Your task to perform on an android device: delete location history Image 0: 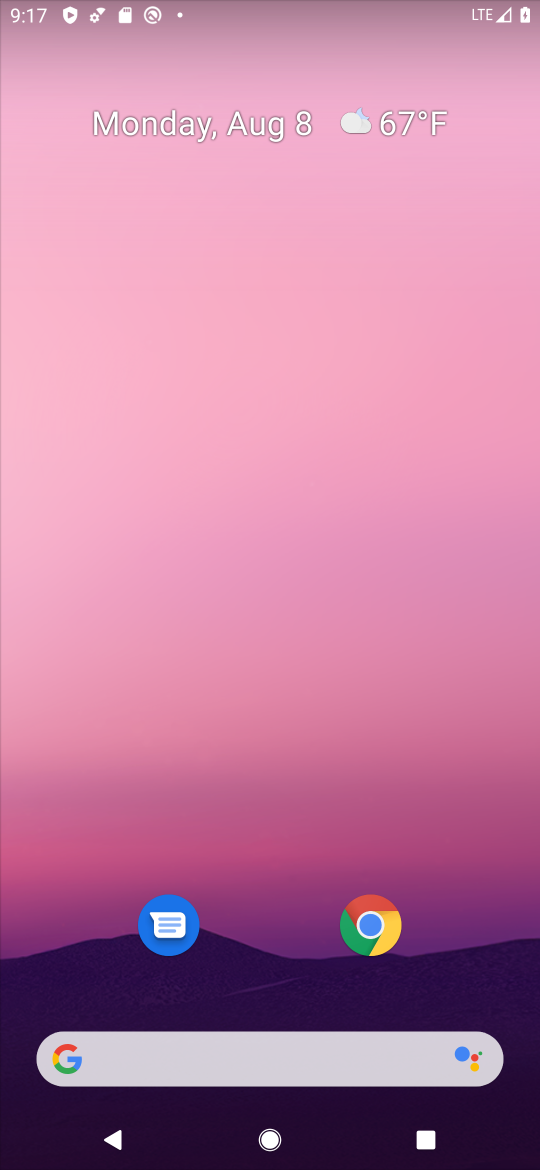
Step 0: drag from (213, 631) to (182, 49)
Your task to perform on an android device: delete location history Image 1: 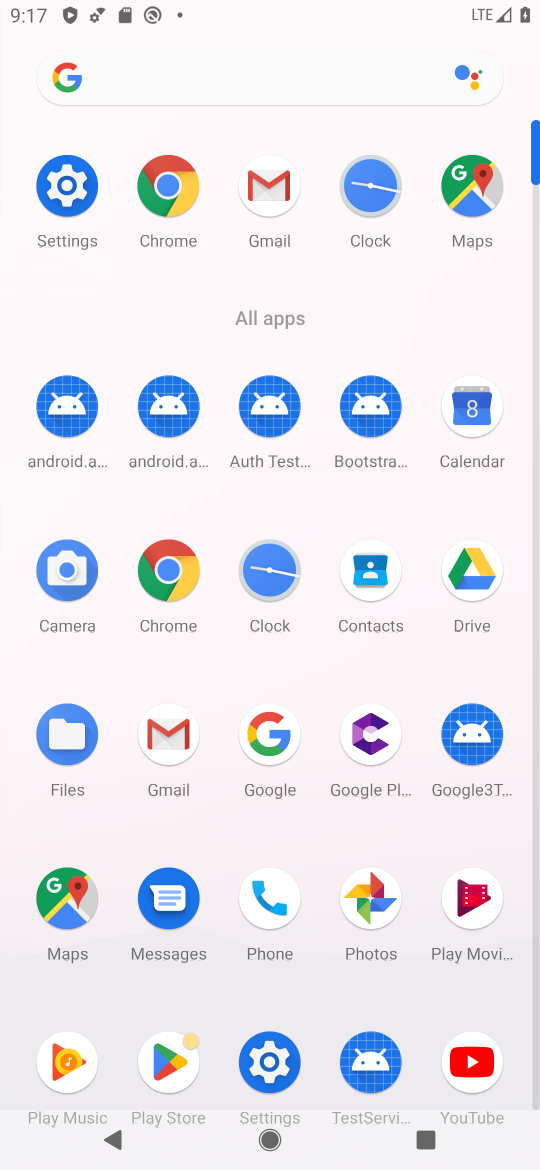
Step 1: click (53, 894)
Your task to perform on an android device: delete location history Image 2: 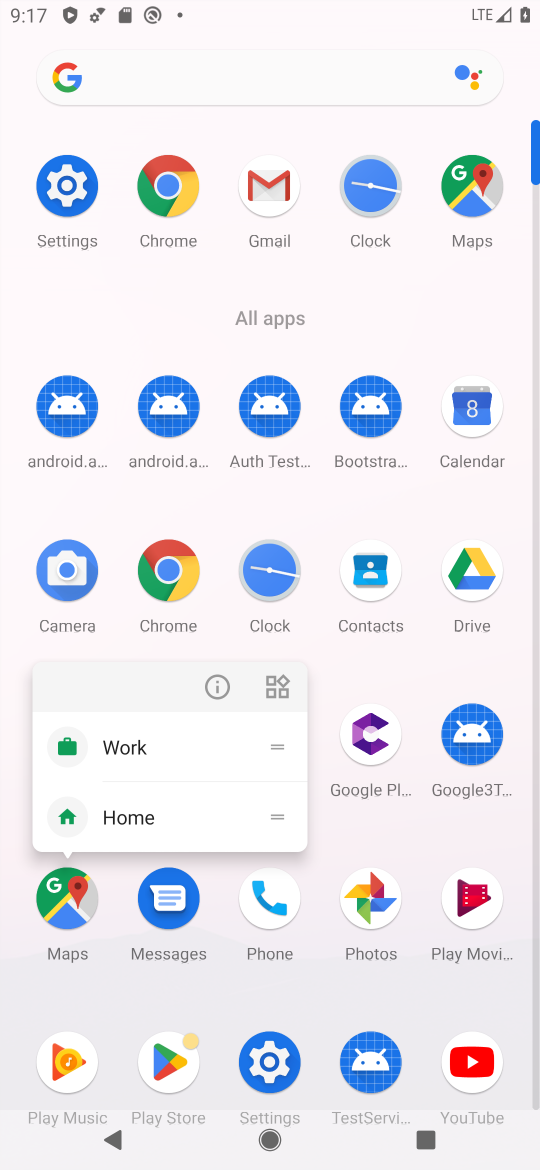
Step 2: click (63, 898)
Your task to perform on an android device: delete location history Image 3: 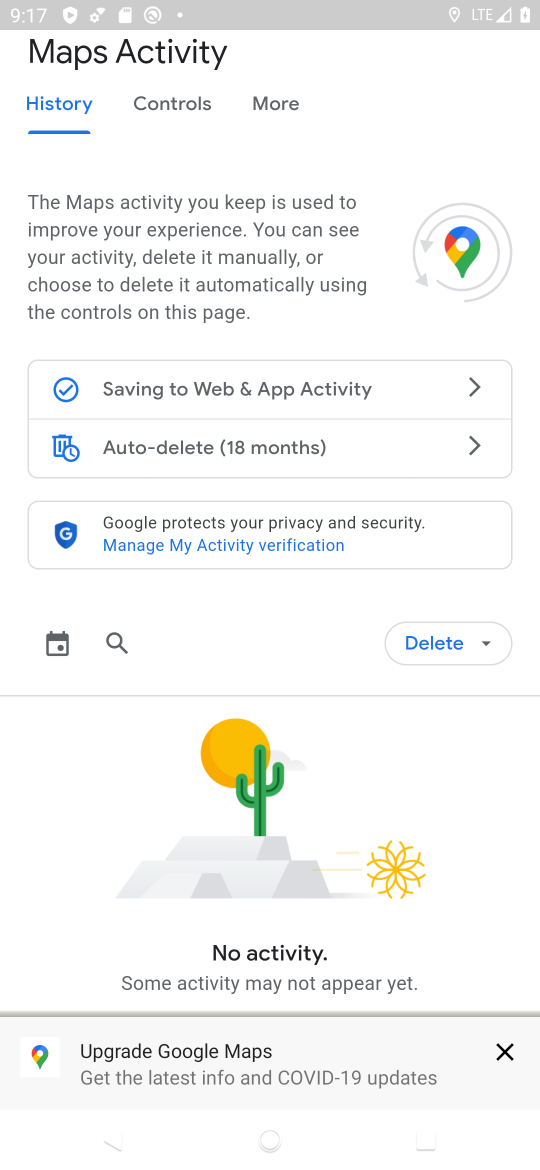
Step 3: click (477, 638)
Your task to perform on an android device: delete location history Image 4: 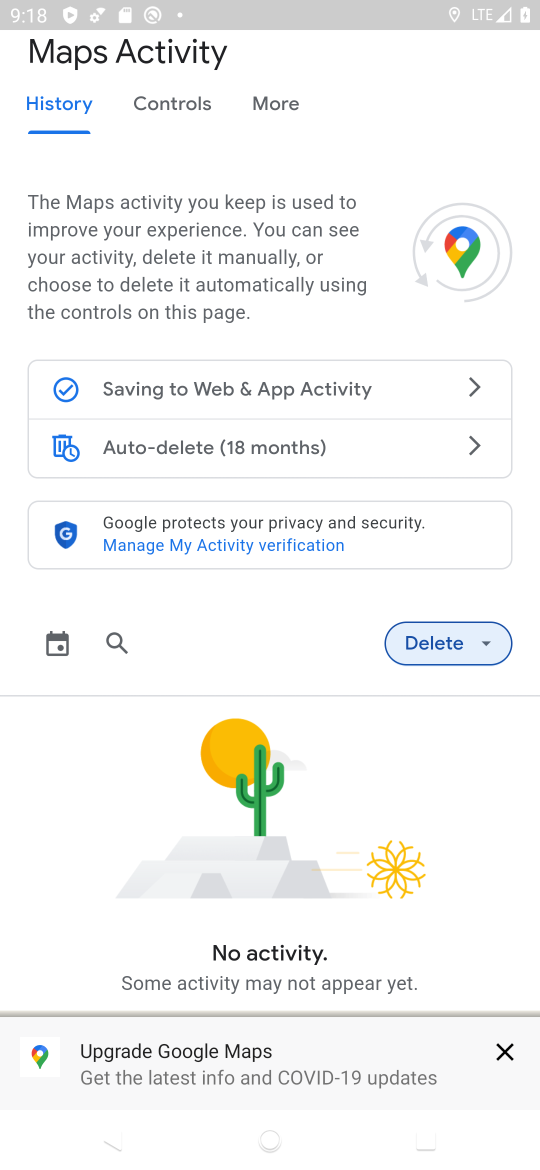
Step 4: click (483, 643)
Your task to perform on an android device: delete location history Image 5: 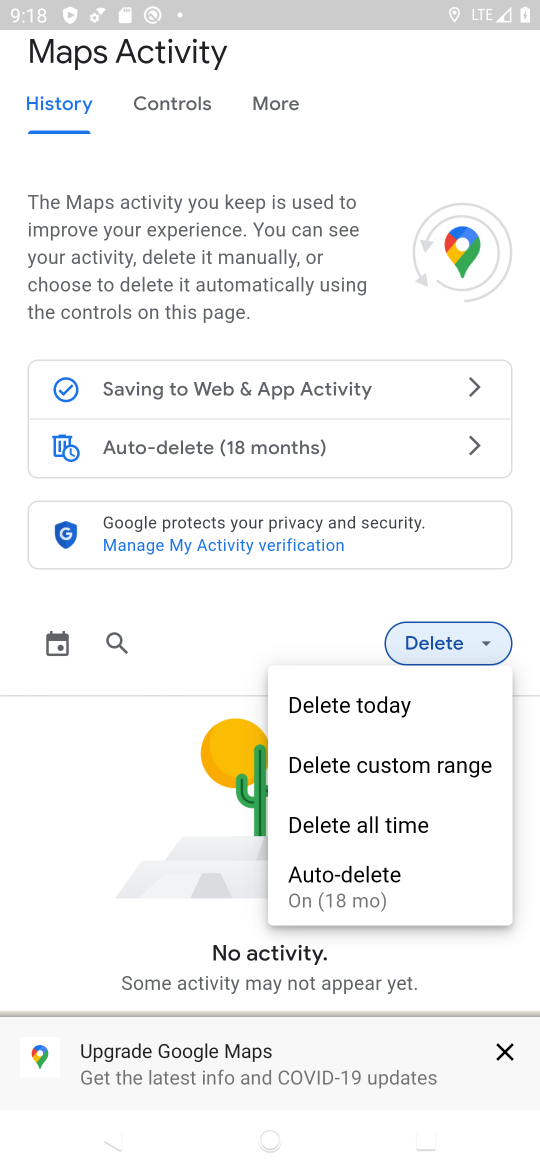
Step 5: click (357, 817)
Your task to perform on an android device: delete location history Image 6: 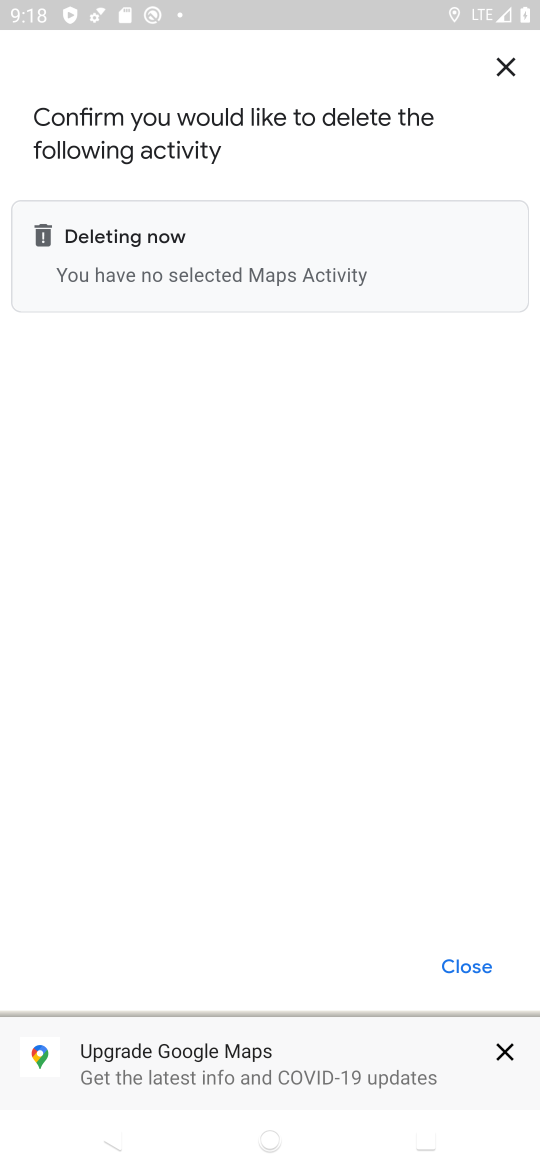
Step 6: click (175, 239)
Your task to perform on an android device: delete location history Image 7: 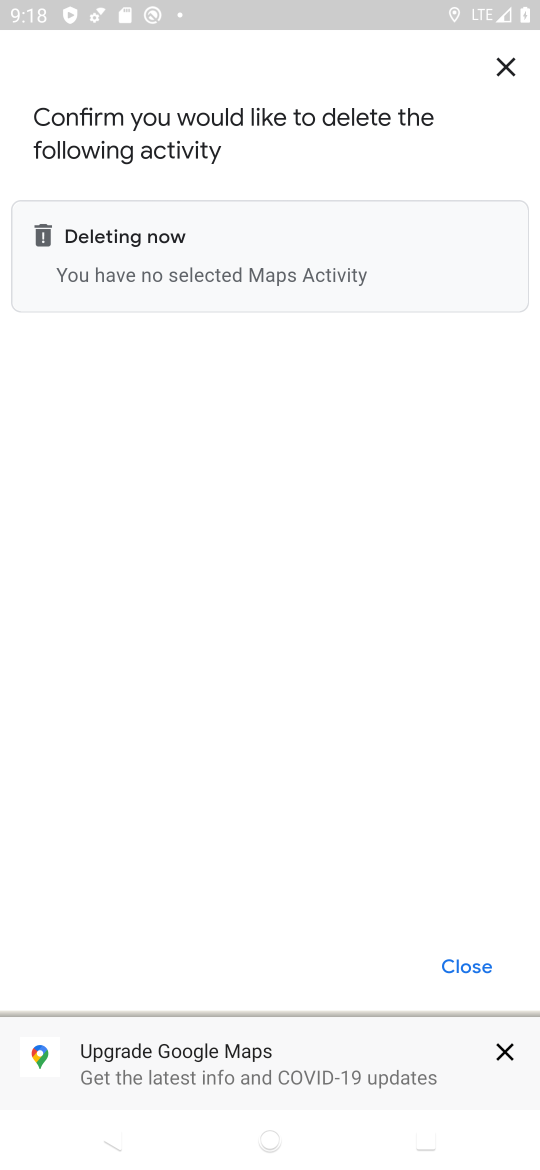
Step 7: click (145, 245)
Your task to perform on an android device: delete location history Image 8: 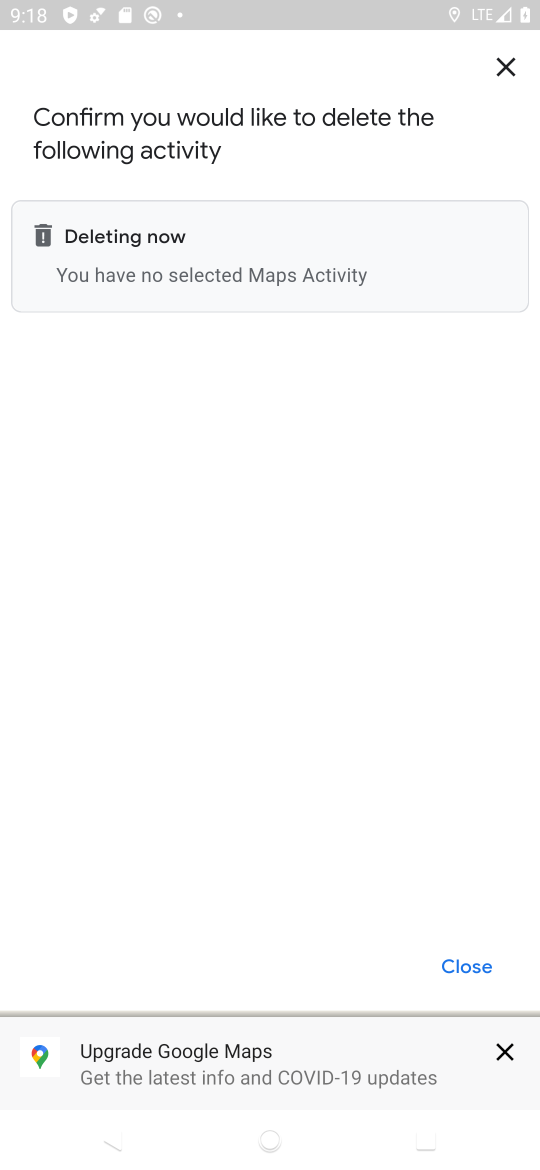
Step 8: drag from (143, 245) to (153, 331)
Your task to perform on an android device: delete location history Image 9: 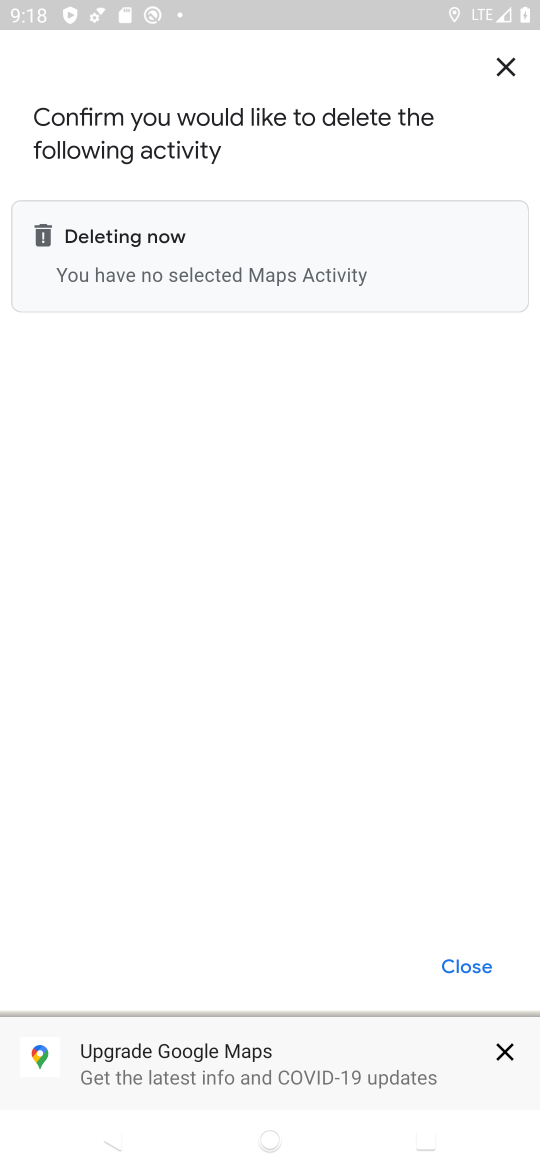
Step 9: click (143, 230)
Your task to perform on an android device: delete location history Image 10: 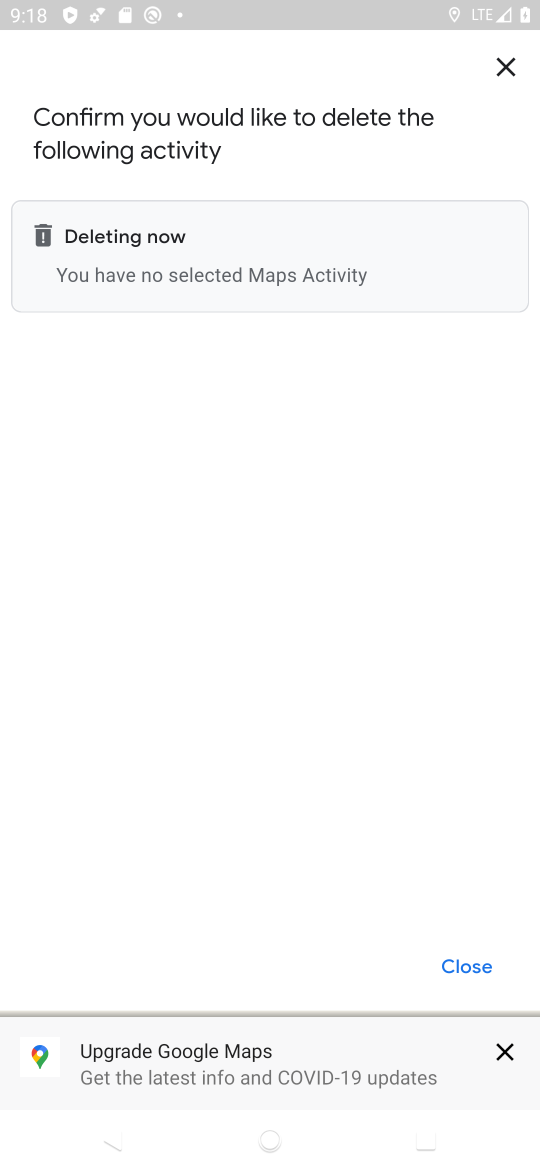
Step 10: click (484, 968)
Your task to perform on an android device: delete location history Image 11: 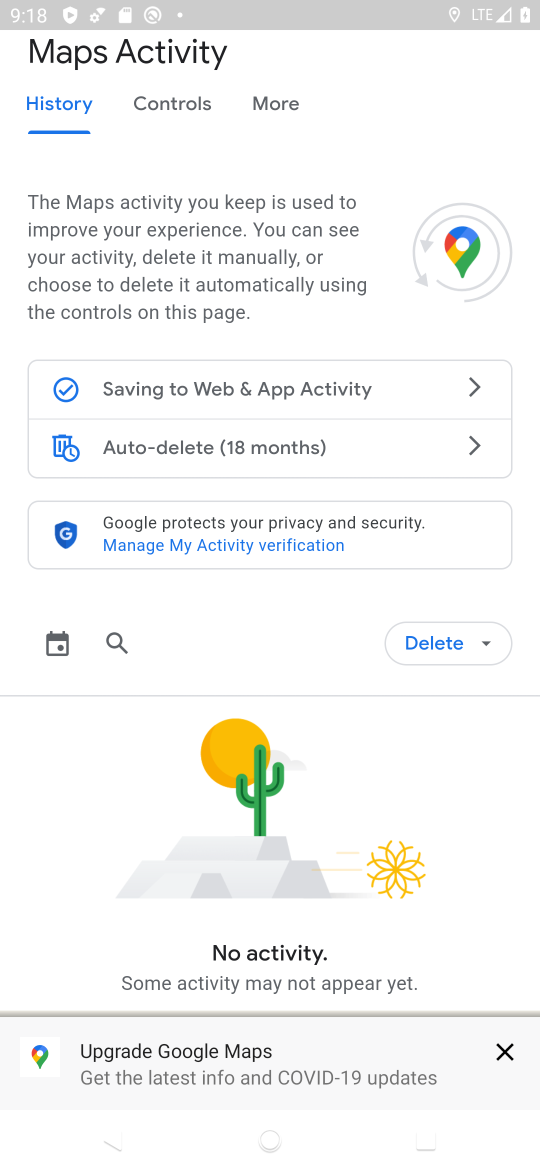
Step 11: click (456, 638)
Your task to perform on an android device: delete location history Image 12: 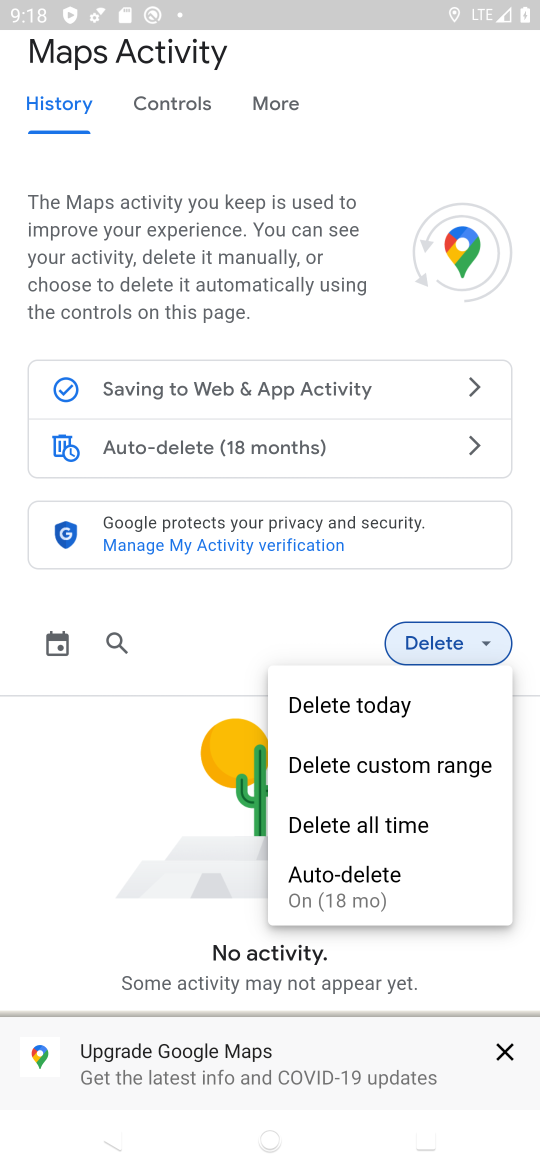
Step 12: click (339, 820)
Your task to perform on an android device: delete location history Image 13: 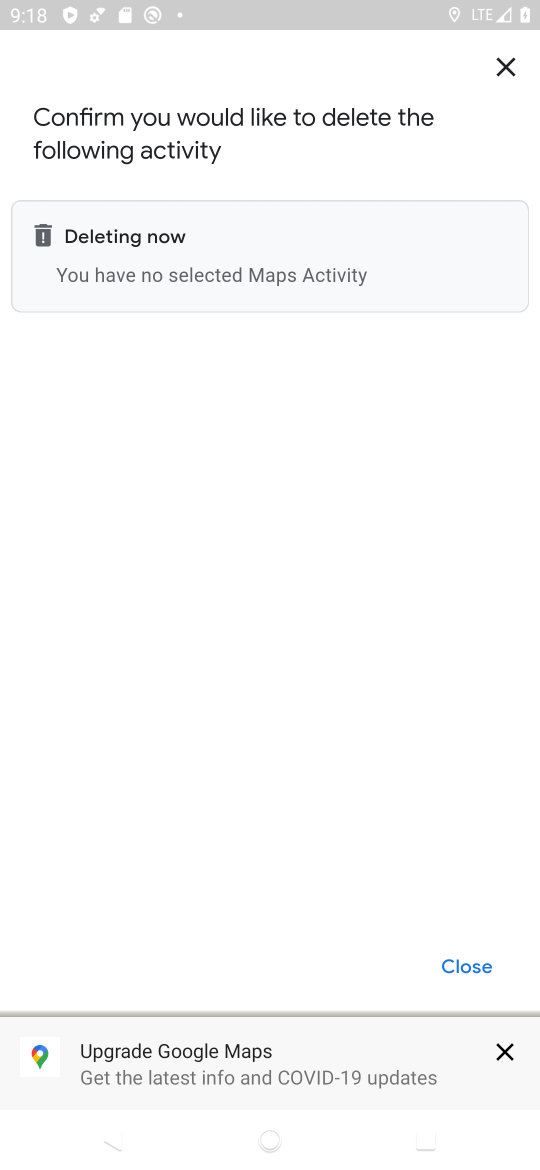
Step 13: click (299, 263)
Your task to perform on an android device: delete location history Image 14: 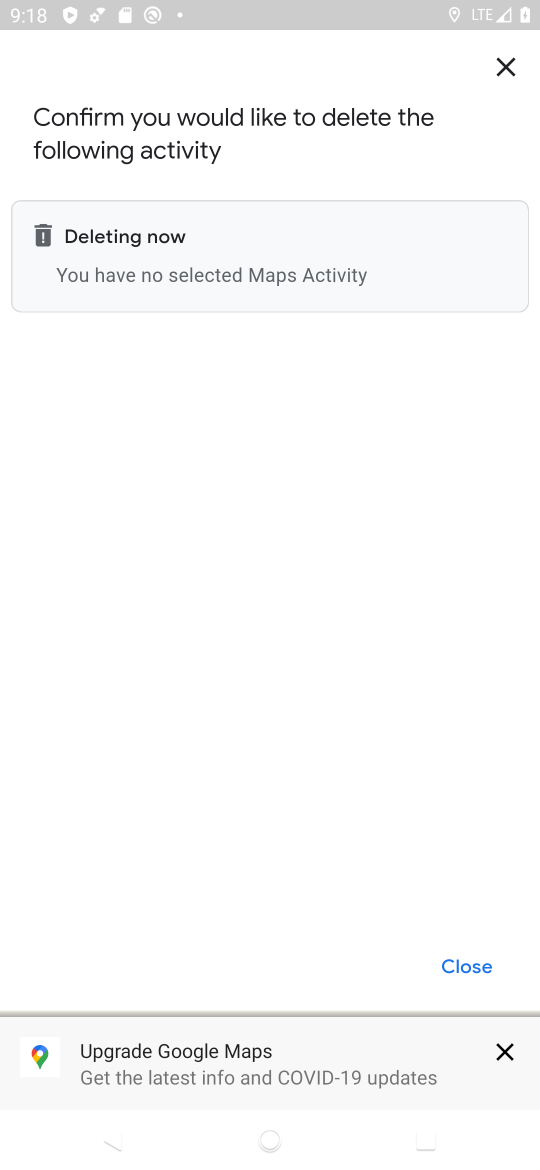
Step 14: click (520, 1050)
Your task to perform on an android device: delete location history Image 15: 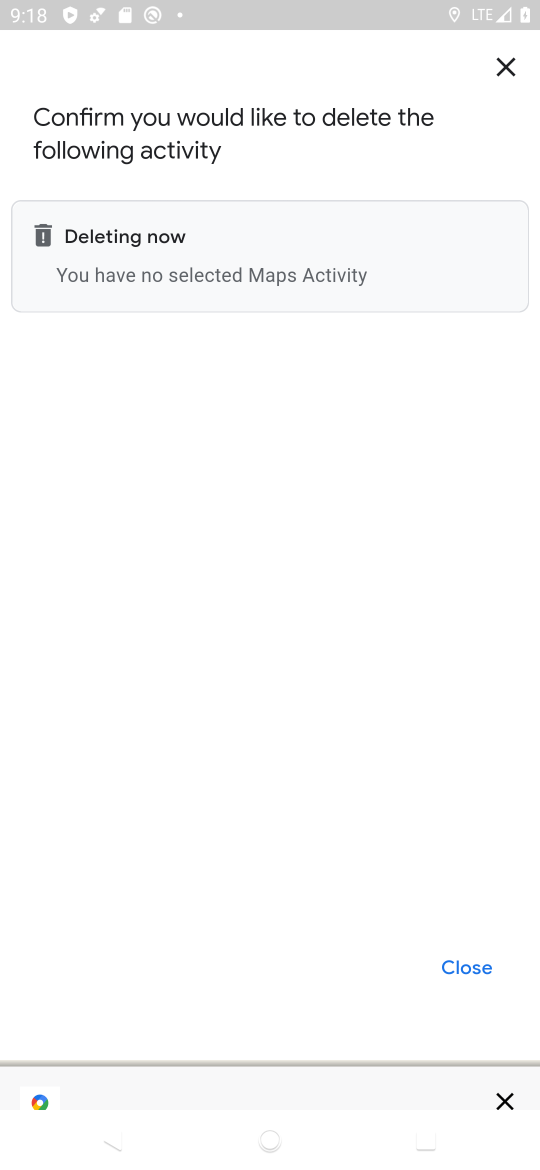
Step 15: click (507, 1048)
Your task to perform on an android device: delete location history Image 16: 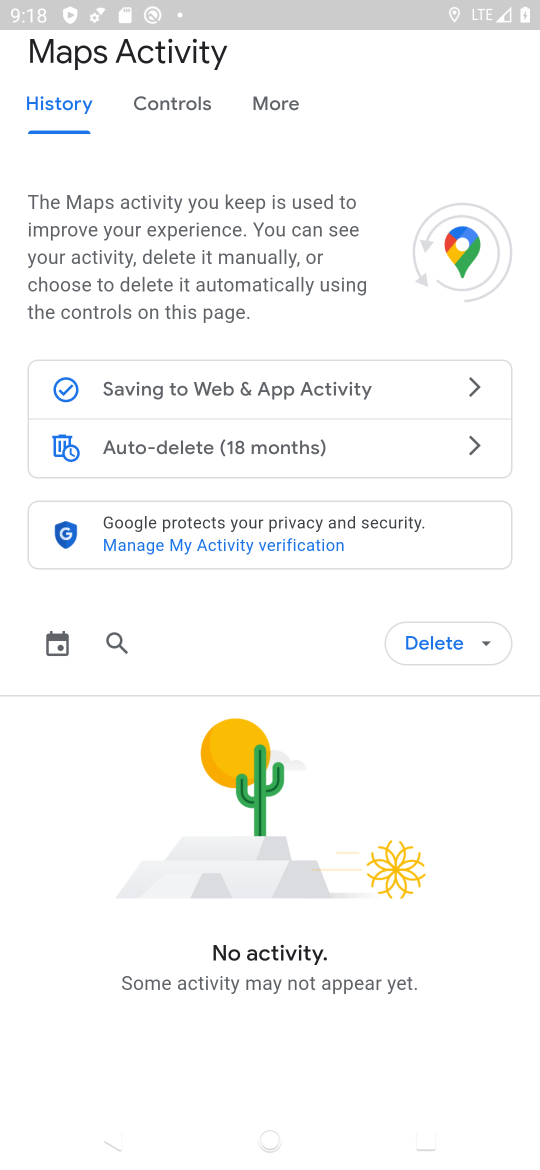
Step 16: task complete